Your task to perform on an android device: open wifi settings Image 0: 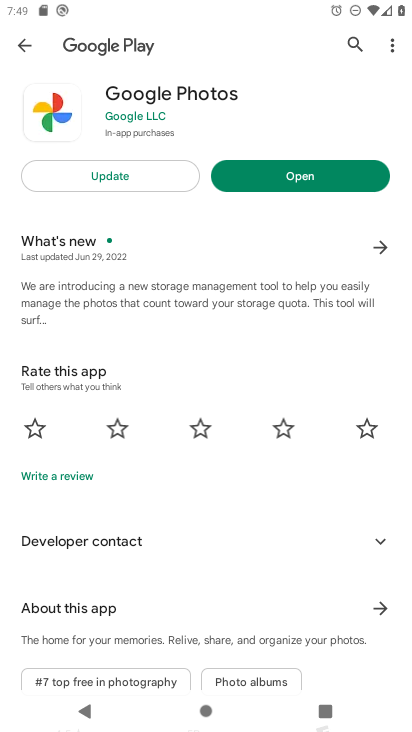
Step 0: click (29, 726)
Your task to perform on an android device: open wifi settings Image 1: 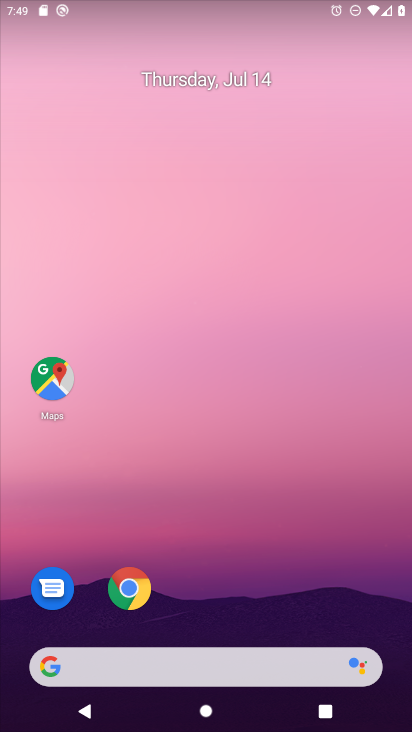
Step 1: drag from (32, 650) to (341, 4)
Your task to perform on an android device: open wifi settings Image 2: 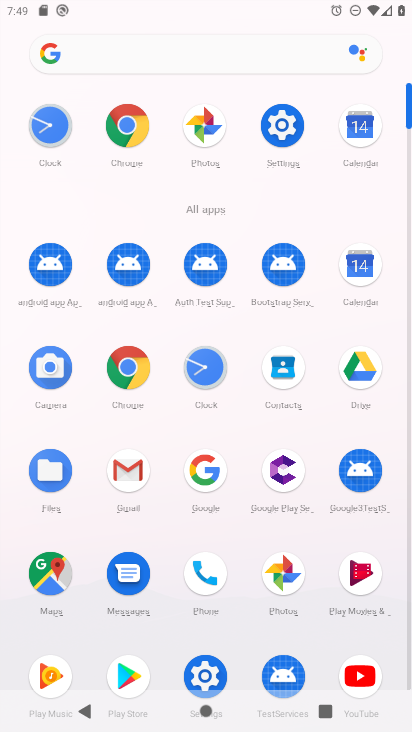
Step 2: click (194, 670)
Your task to perform on an android device: open wifi settings Image 3: 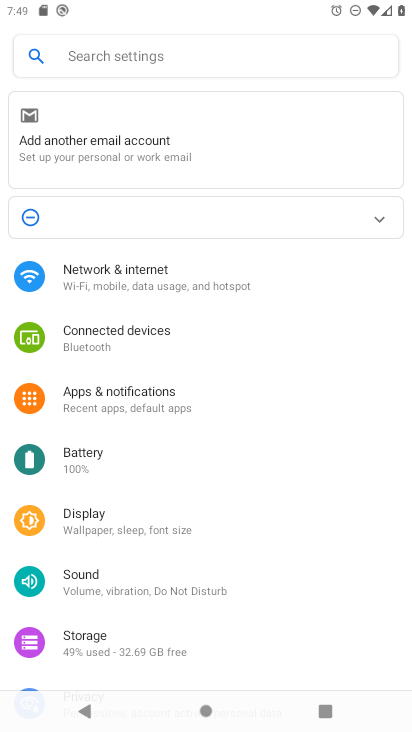
Step 3: click (143, 282)
Your task to perform on an android device: open wifi settings Image 4: 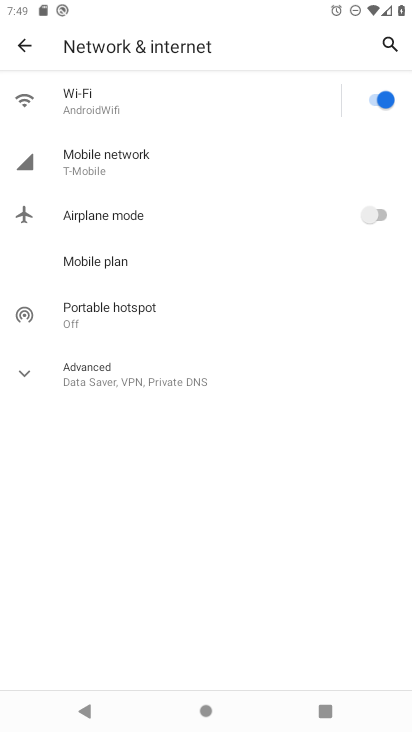
Step 4: click (82, 98)
Your task to perform on an android device: open wifi settings Image 5: 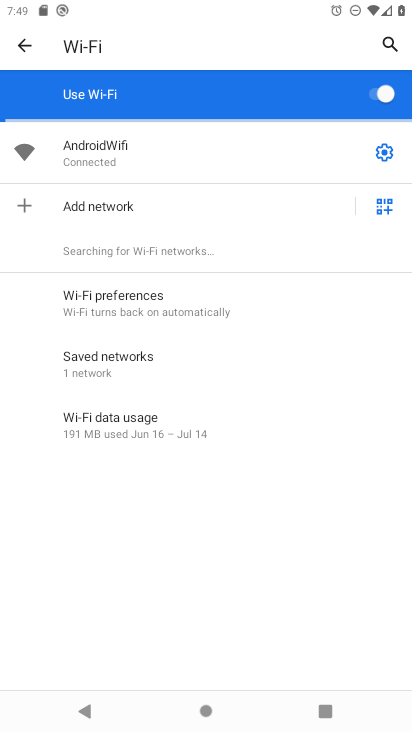
Step 5: task complete